Your task to perform on an android device: see creations saved in the google photos Image 0: 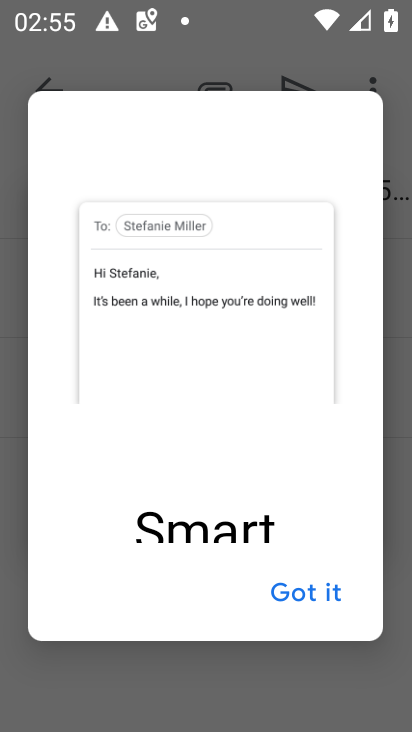
Step 0: press home button
Your task to perform on an android device: see creations saved in the google photos Image 1: 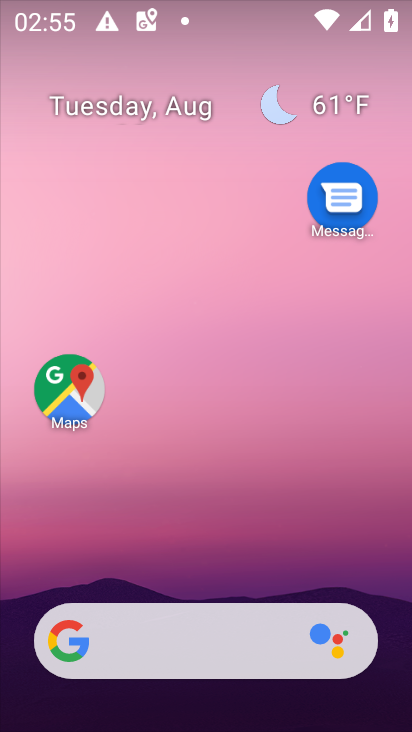
Step 1: drag from (259, 565) to (246, 170)
Your task to perform on an android device: see creations saved in the google photos Image 2: 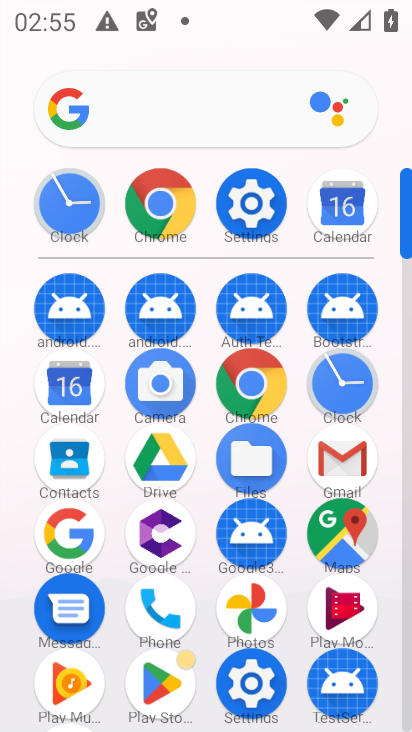
Step 2: click (246, 606)
Your task to perform on an android device: see creations saved in the google photos Image 3: 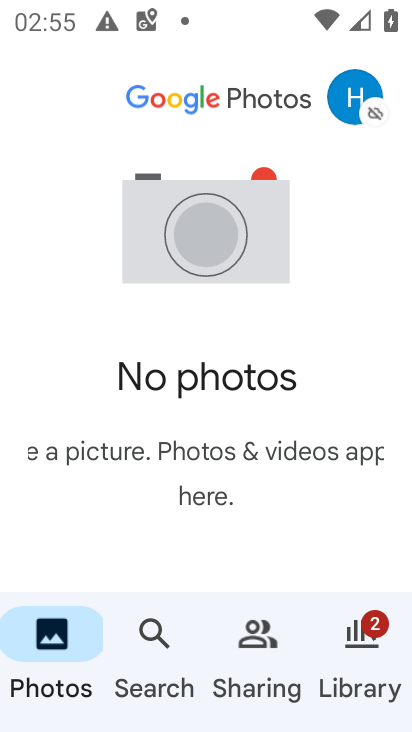
Step 3: click (372, 666)
Your task to perform on an android device: see creations saved in the google photos Image 4: 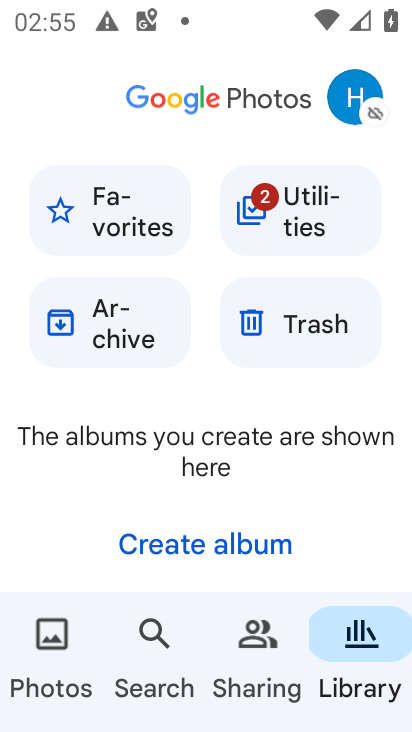
Step 4: click (140, 322)
Your task to perform on an android device: see creations saved in the google photos Image 5: 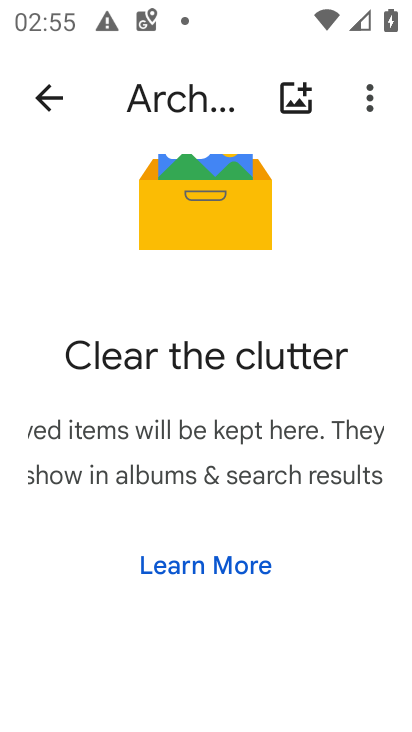
Step 5: task complete